Your task to perform on an android device: open sync settings in chrome Image 0: 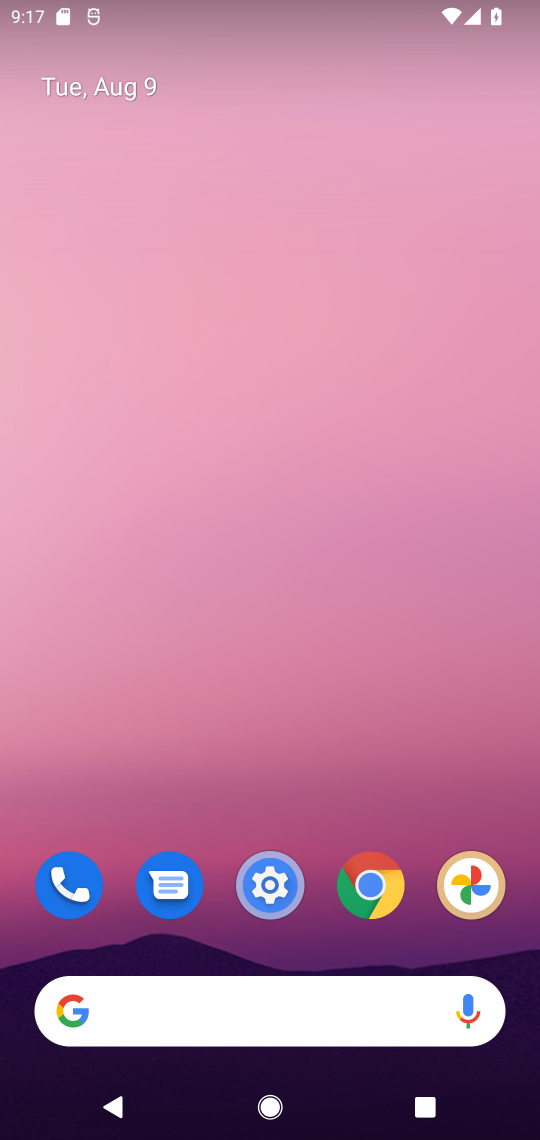
Step 0: click (373, 904)
Your task to perform on an android device: open sync settings in chrome Image 1: 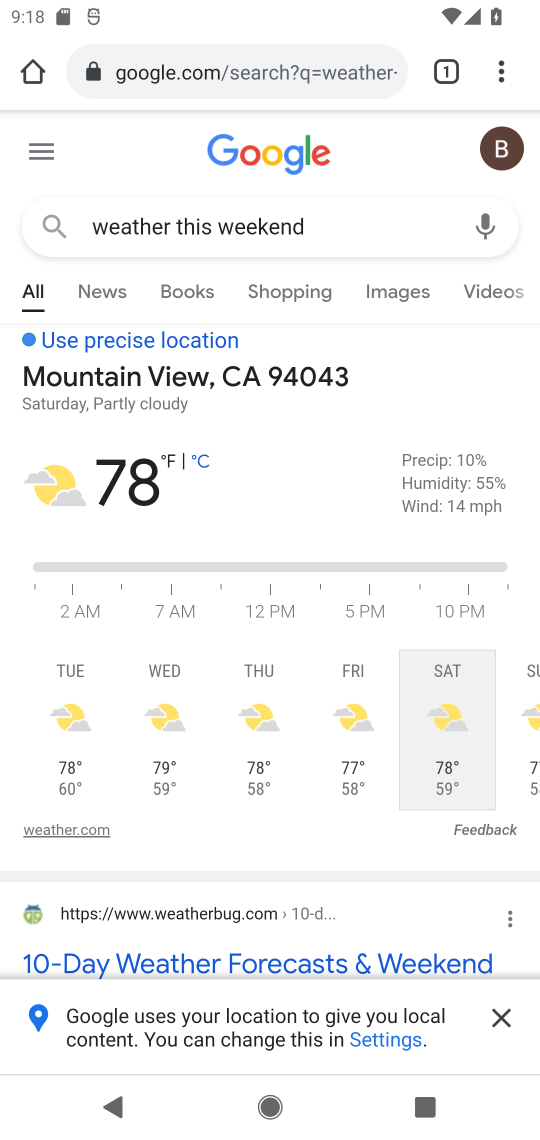
Step 1: drag from (500, 65) to (296, 903)
Your task to perform on an android device: open sync settings in chrome Image 2: 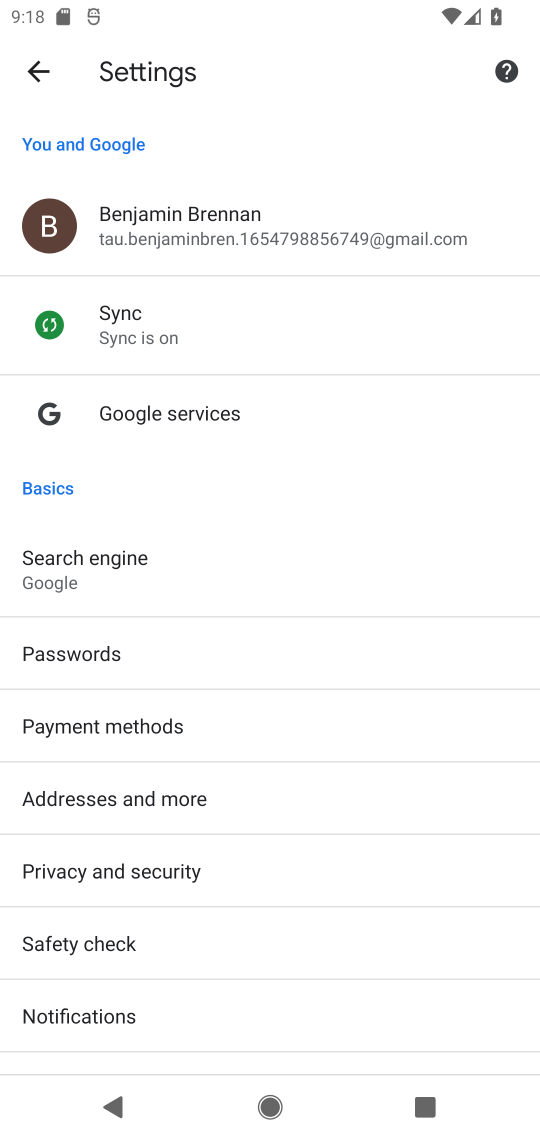
Step 2: click (136, 349)
Your task to perform on an android device: open sync settings in chrome Image 3: 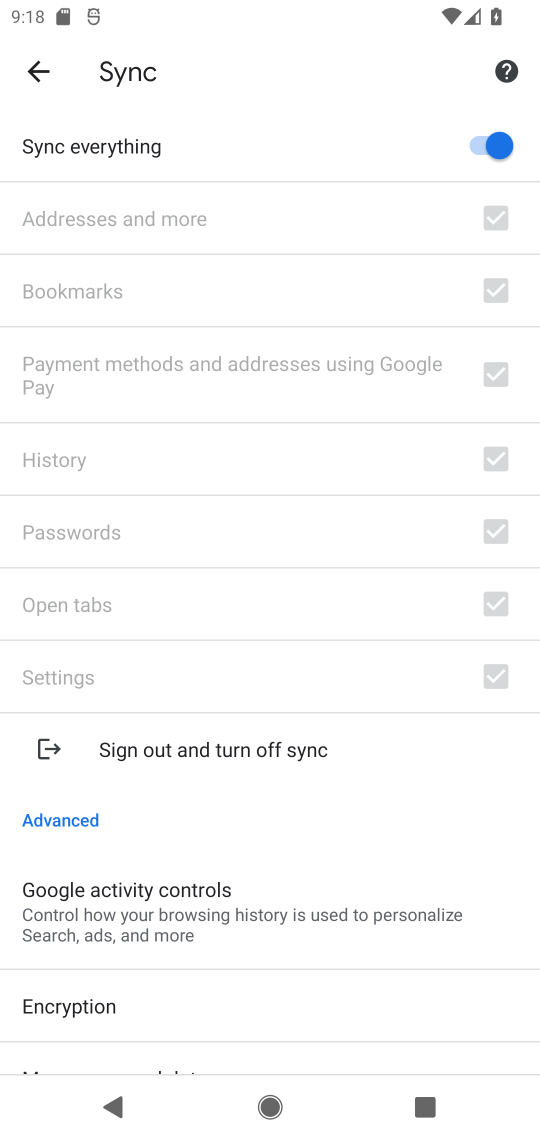
Step 3: task complete